Your task to perform on an android device: uninstall "Cash App" Image 0: 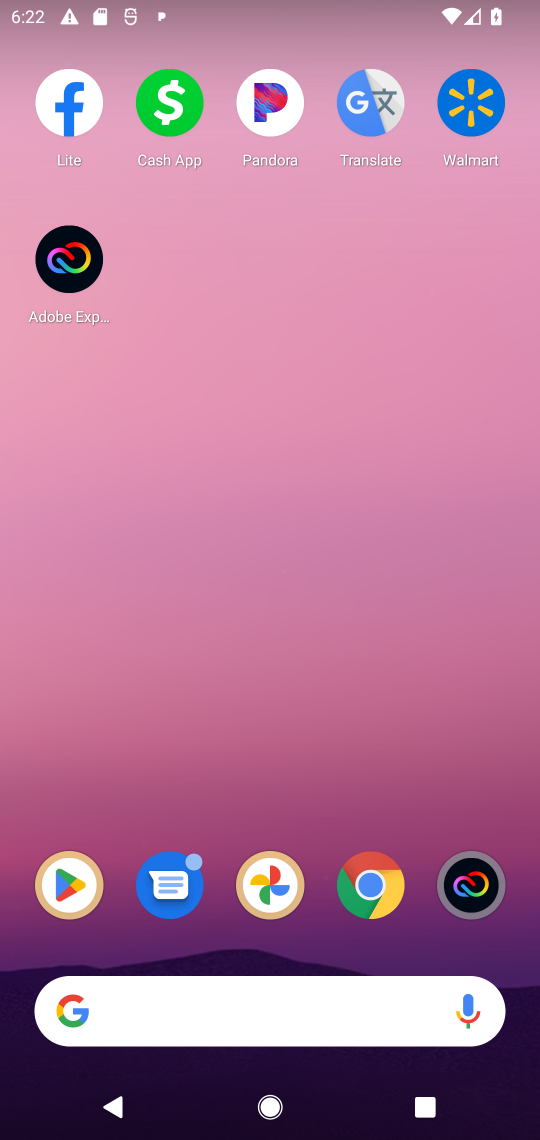
Step 0: press home button
Your task to perform on an android device: uninstall "Cash App" Image 1: 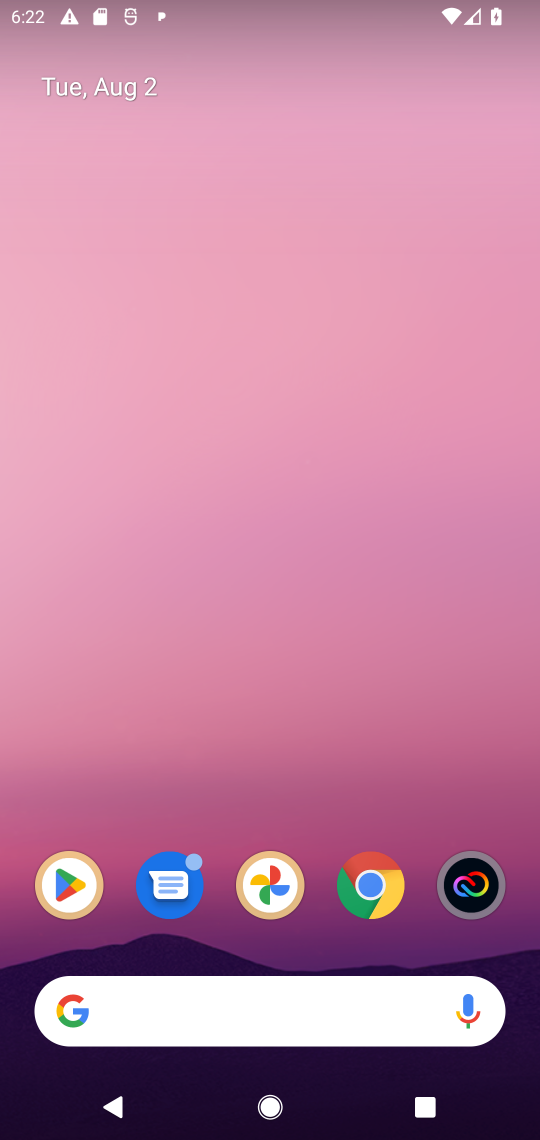
Step 1: drag from (430, 798) to (405, 95)
Your task to perform on an android device: uninstall "Cash App" Image 2: 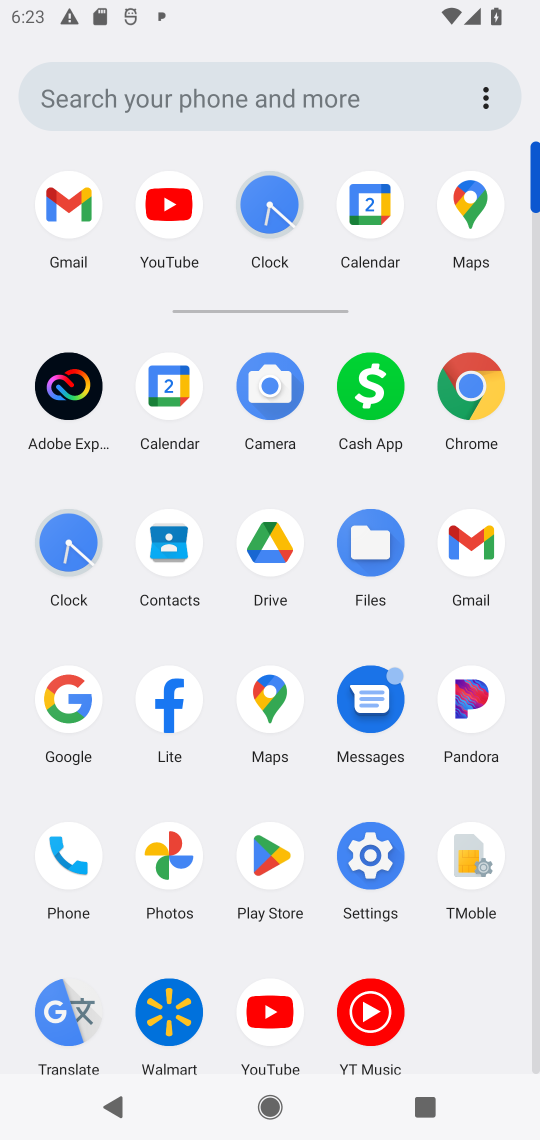
Step 2: click (276, 865)
Your task to perform on an android device: uninstall "Cash App" Image 3: 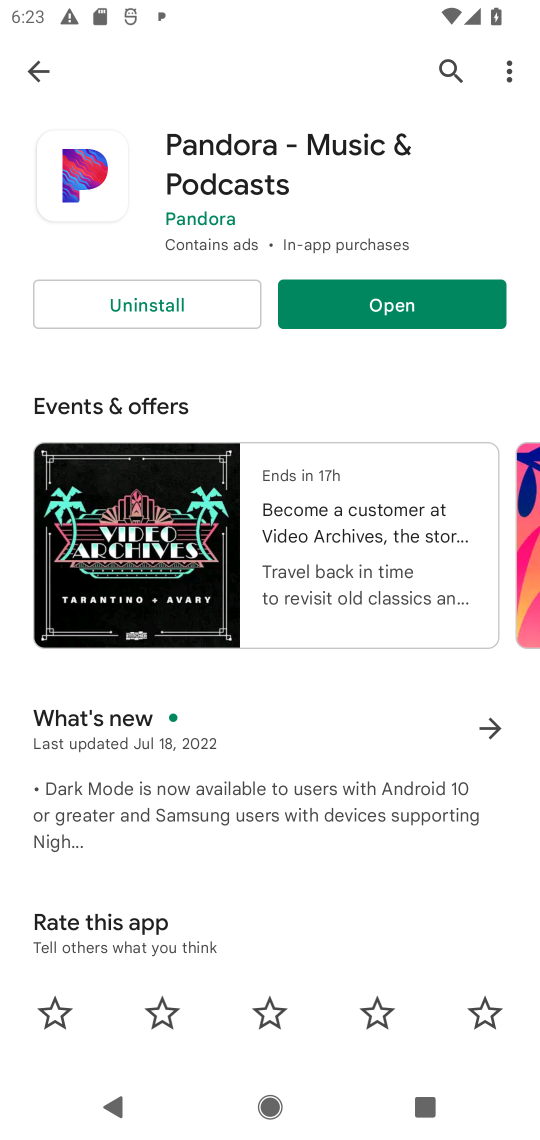
Step 3: click (448, 70)
Your task to perform on an android device: uninstall "Cash App" Image 4: 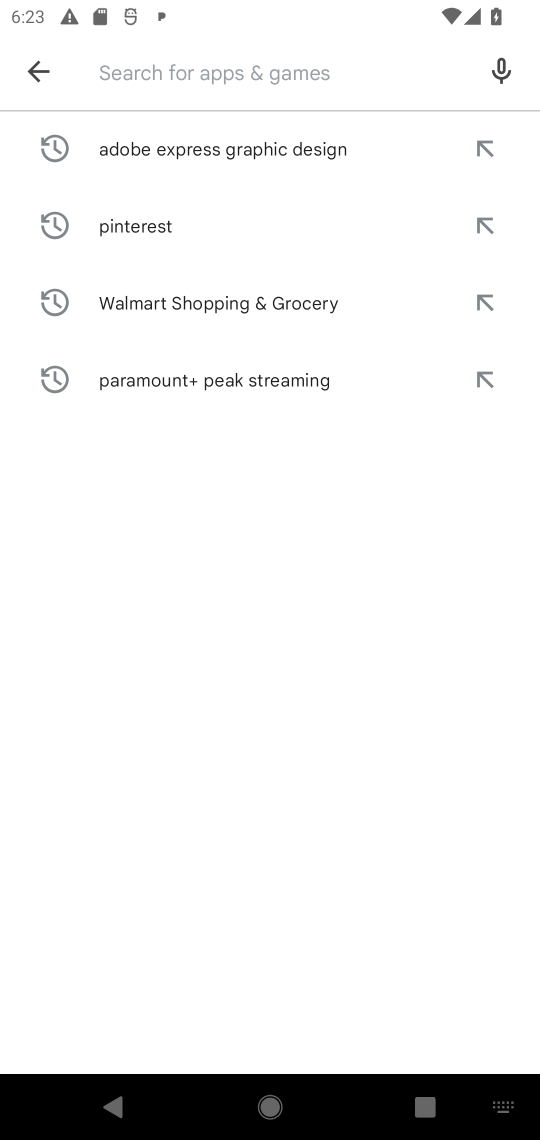
Step 4: type "cash app"
Your task to perform on an android device: uninstall "Cash App" Image 5: 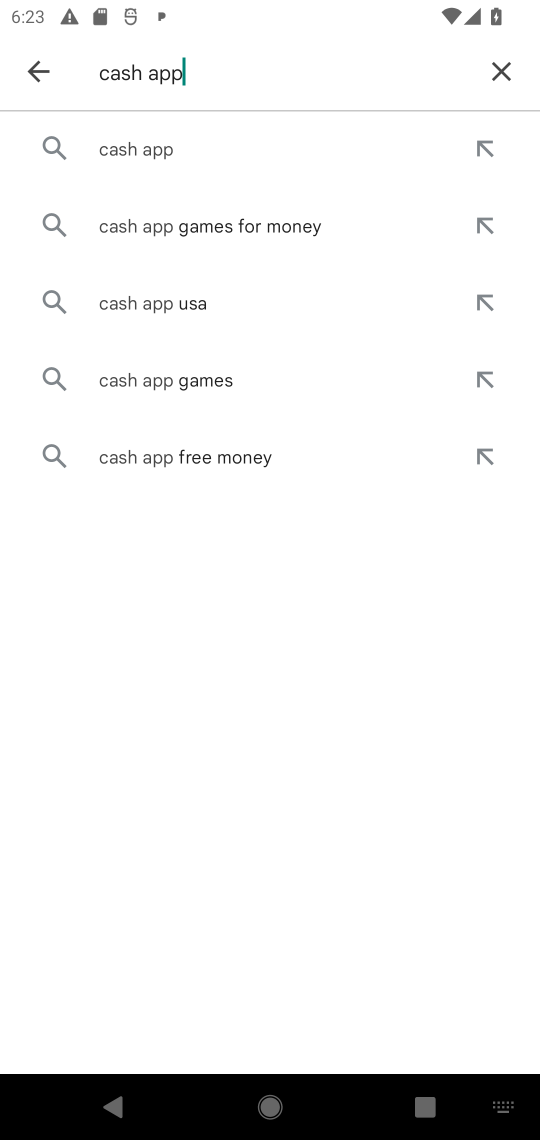
Step 5: click (188, 139)
Your task to perform on an android device: uninstall "Cash App" Image 6: 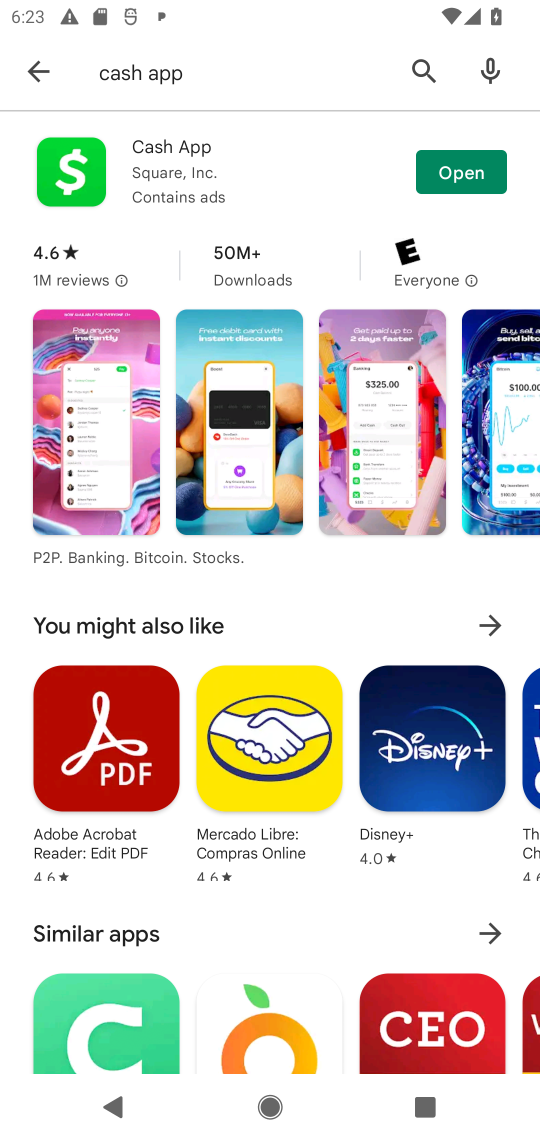
Step 6: task complete